Your task to perform on an android device: add a contact Image 0: 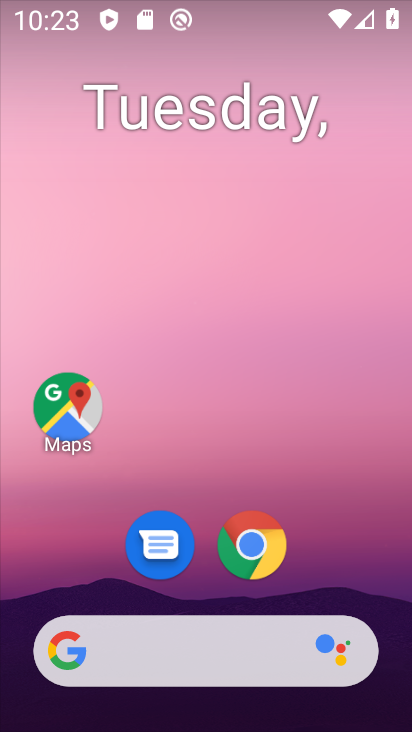
Step 0: click (339, 299)
Your task to perform on an android device: add a contact Image 1: 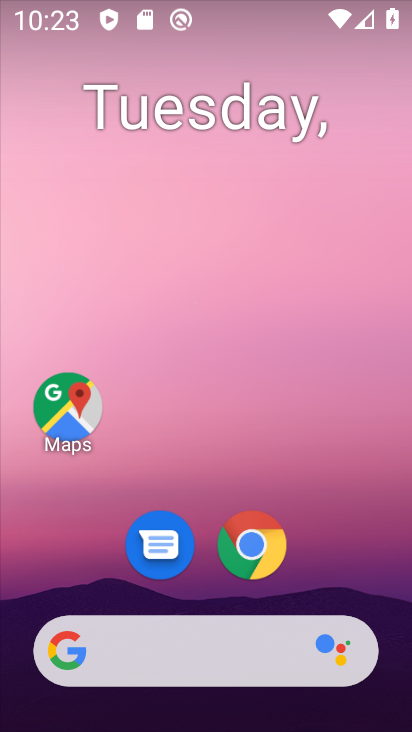
Step 1: click (215, 273)
Your task to perform on an android device: add a contact Image 2: 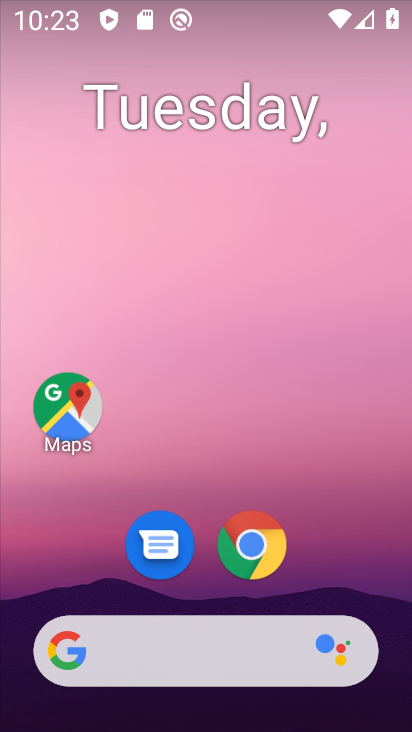
Step 2: drag from (197, 550) to (197, 238)
Your task to perform on an android device: add a contact Image 3: 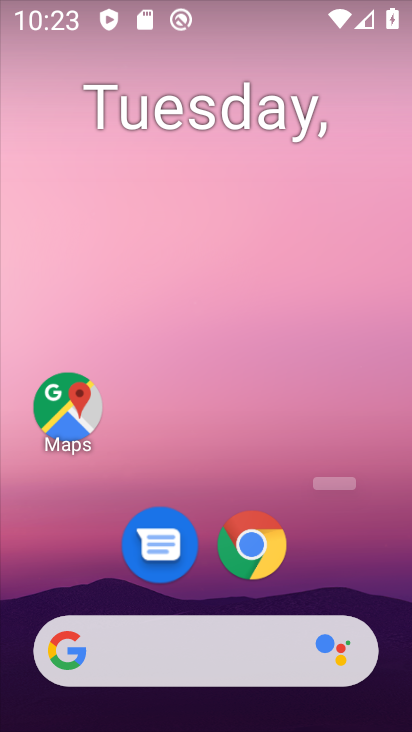
Step 3: drag from (206, 404) to (215, 155)
Your task to perform on an android device: add a contact Image 4: 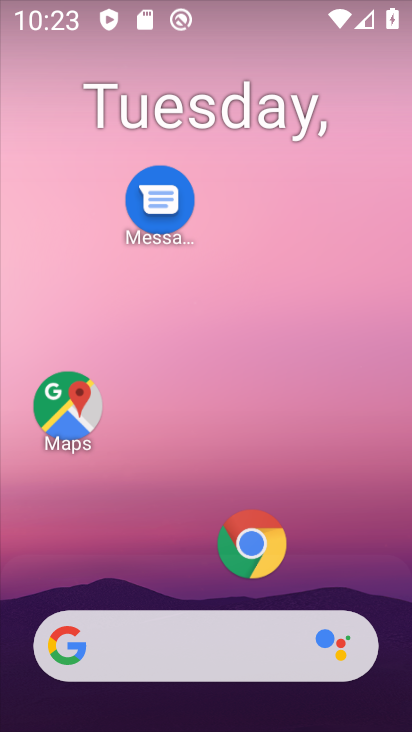
Step 4: drag from (283, 507) to (299, 308)
Your task to perform on an android device: add a contact Image 5: 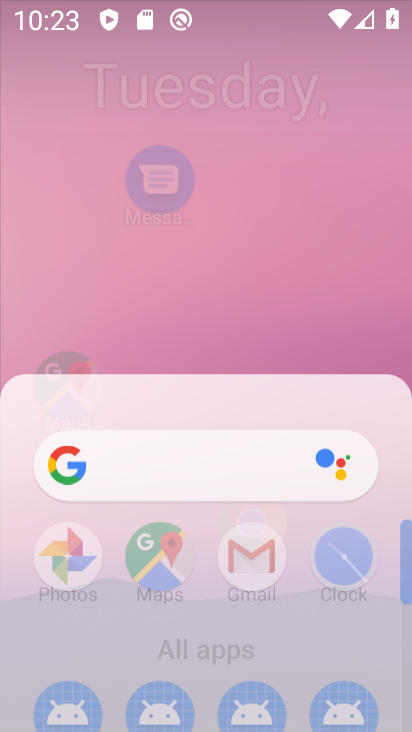
Step 5: drag from (305, 363) to (305, 183)
Your task to perform on an android device: add a contact Image 6: 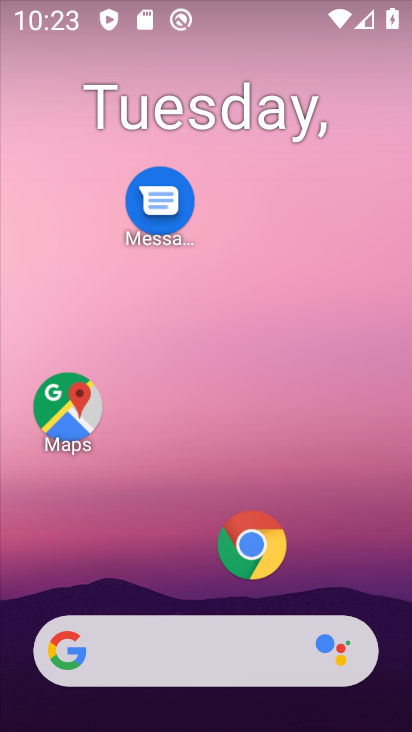
Step 6: click (309, 265)
Your task to perform on an android device: add a contact Image 7: 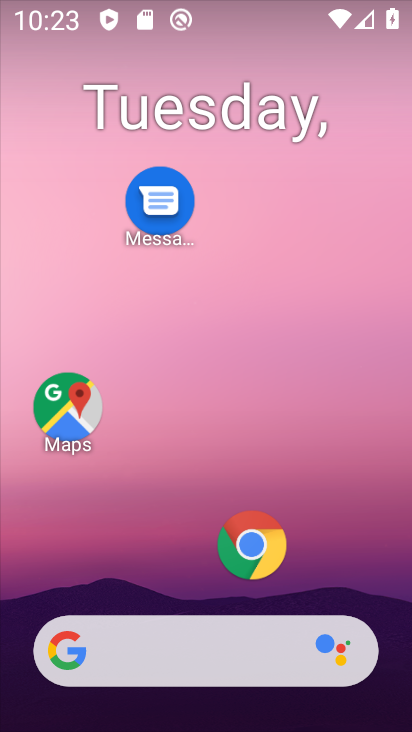
Step 7: drag from (297, 516) to (299, 288)
Your task to perform on an android device: add a contact Image 8: 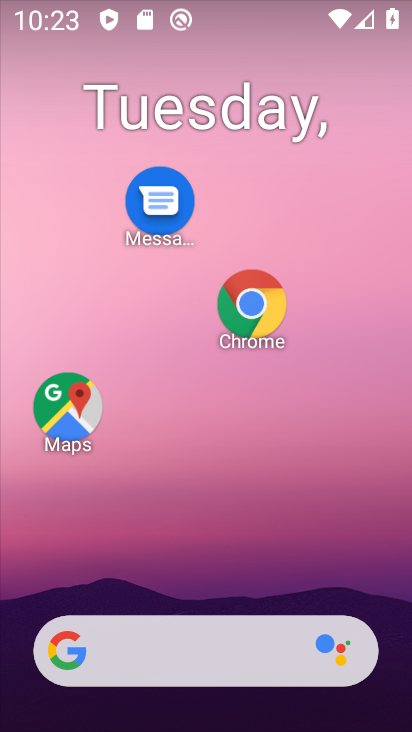
Step 8: drag from (199, 380) to (193, 293)
Your task to perform on an android device: add a contact Image 9: 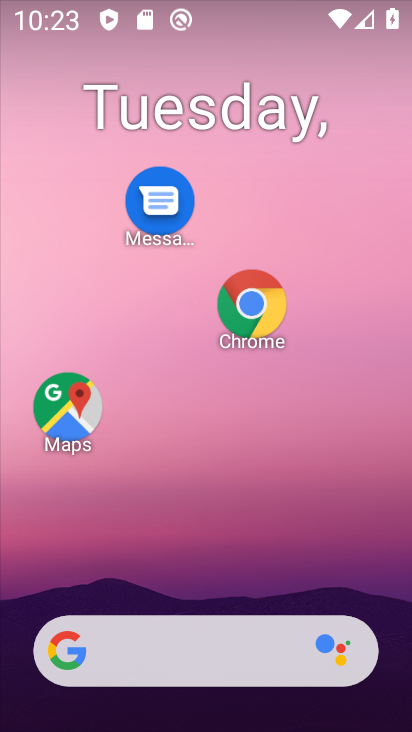
Step 9: drag from (201, 566) to (294, 105)
Your task to perform on an android device: add a contact Image 10: 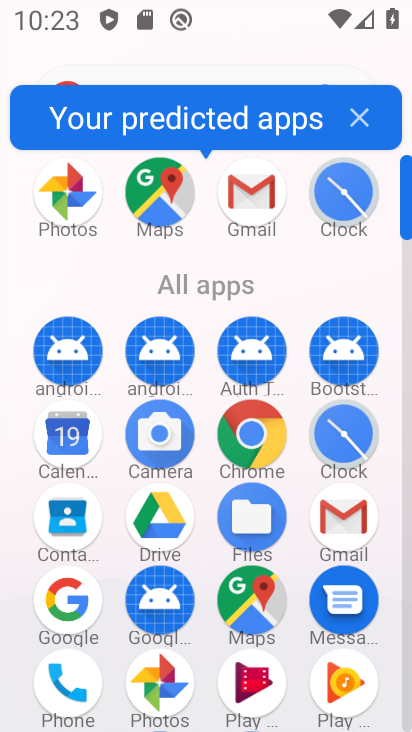
Step 10: click (66, 672)
Your task to perform on an android device: add a contact Image 11: 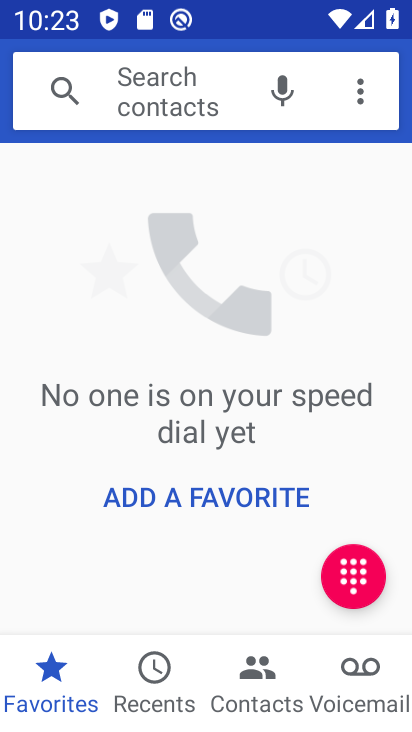
Step 11: click (233, 486)
Your task to perform on an android device: add a contact Image 12: 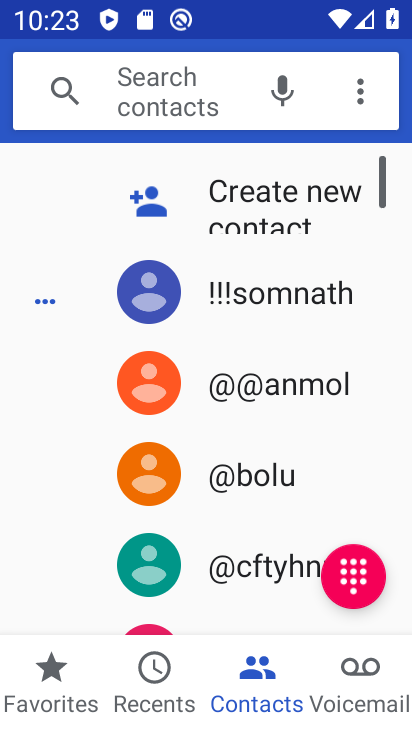
Step 12: click (220, 207)
Your task to perform on an android device: add a contact Image 13: 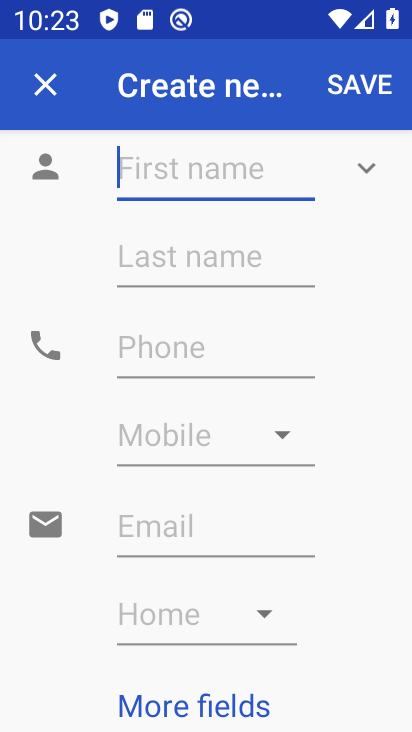
Step 13: type "hhhhhhhh"
Your task to perform on an android device: add a contact Image 14: 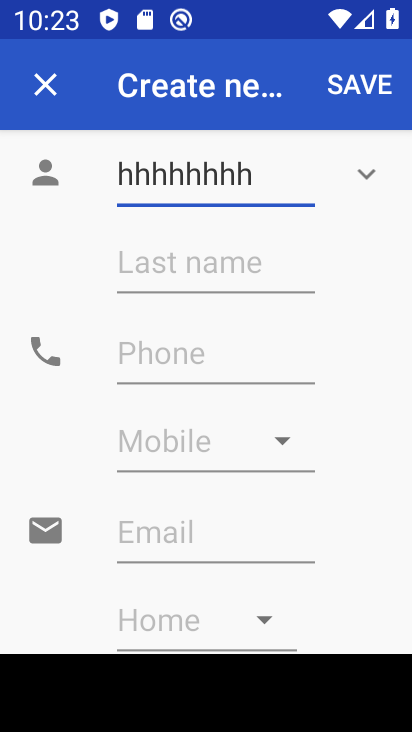
Step 14: click (216, 356)
Your task to perform on an android device: add a contact Image 15: 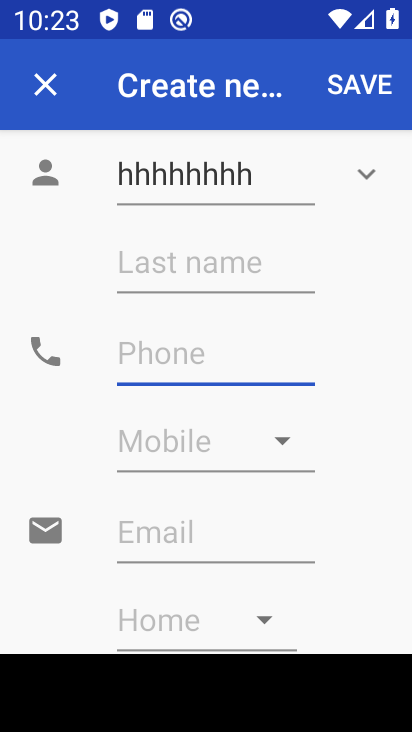
Step 15: type "00000000000000"
Your task to perform on an android device: add a contact Image 16: 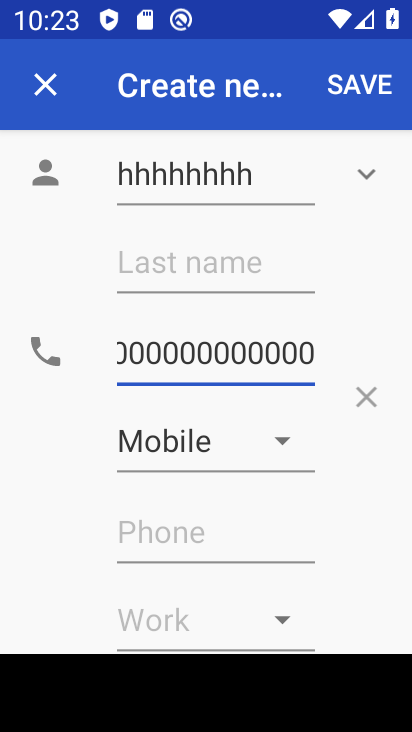
Step 16: click (358, 79)
Your task to perform on an android device: add a contact Image 17: 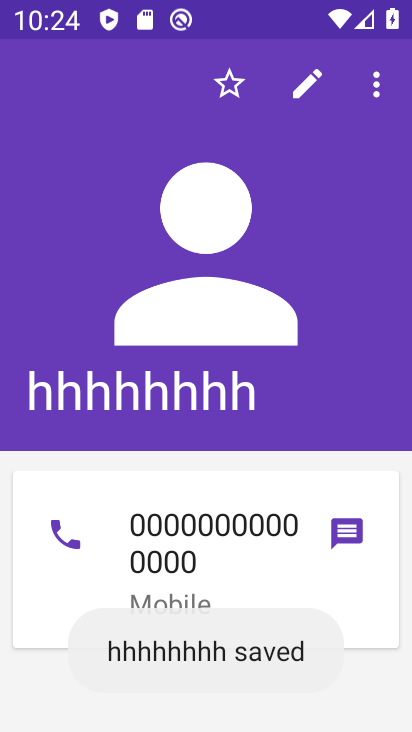
Step 17: task complete